Your task to perform on an android device: Search for vegetarian restaurants on Maps Image 0: 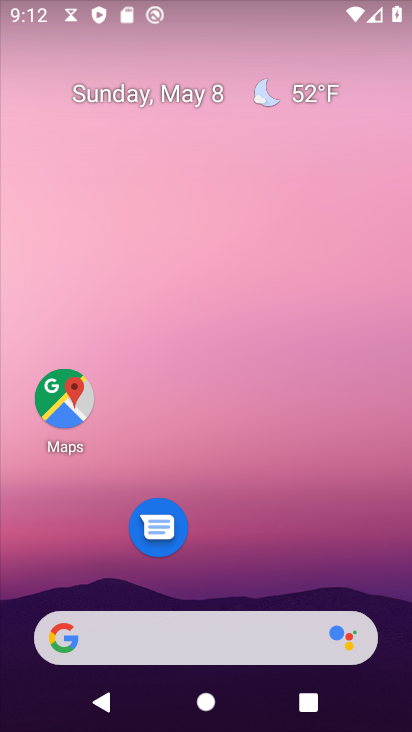
Step 0: click (65, 403)
Your task to perform on an android device: Search for vegetarian restaurants on Maps Image 1: 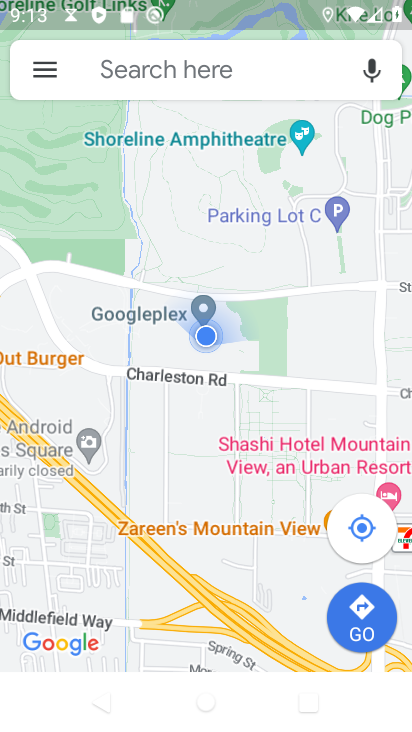
Step 1: click (186, 75)
Your task to perform on an android device: Search for vegetarian restaurants on Maps Image 2: 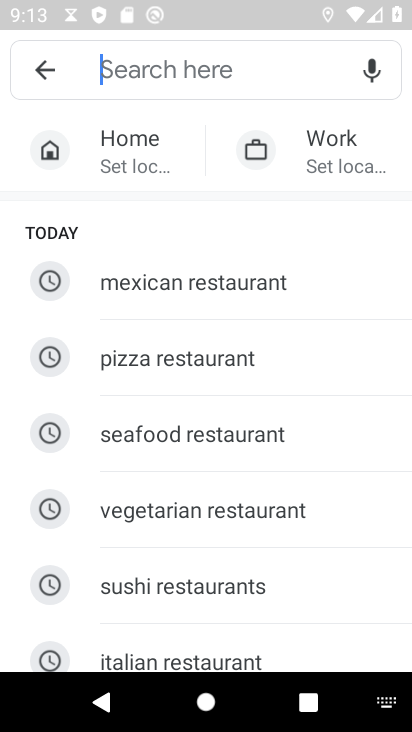
Step 2: type "vegetarian restaurants"
Your task to perform on an android device: Search for vegetarian restaurants on Maps Image 3: 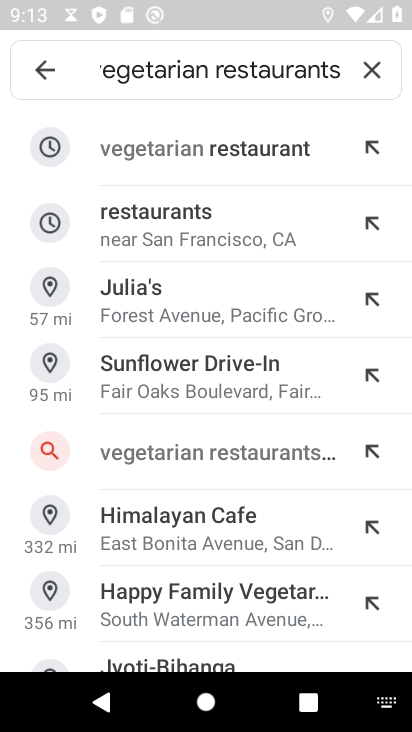
Step 3: click (244, 144)
Your task to perform on an android device: Search for vegetarian restaurants on Maps Image 4: 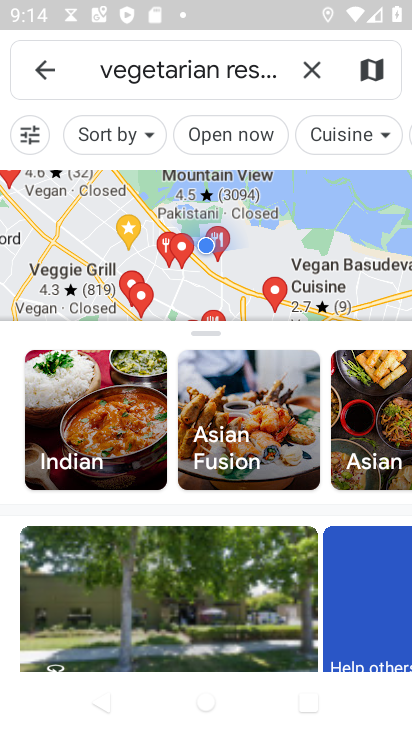
Step 4: task complete